Your task to perform on an android device: See recent photos Image 0: 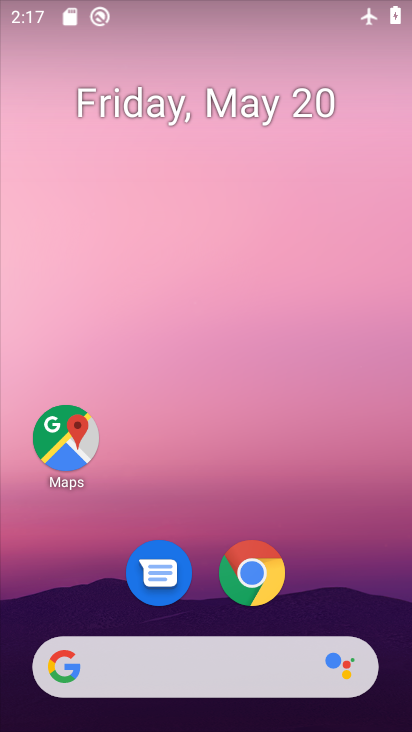
Step 0: drag from (216, 621) to (217, 173)
Your task to perform on an android device: See recent photos Image 1: 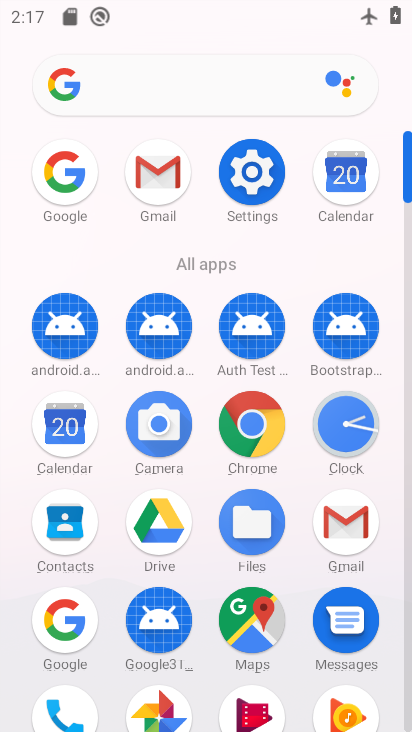
Step 1: drag from (189, 647) to (185, 430)
Your task to perform on an android device: See recent photos Image 2: 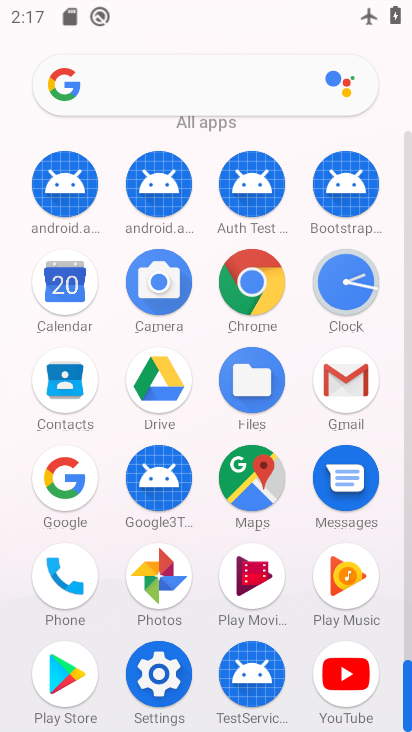
Step 2: click (159, 588)
Your task to perform on an android device: See recent photos Image 3: 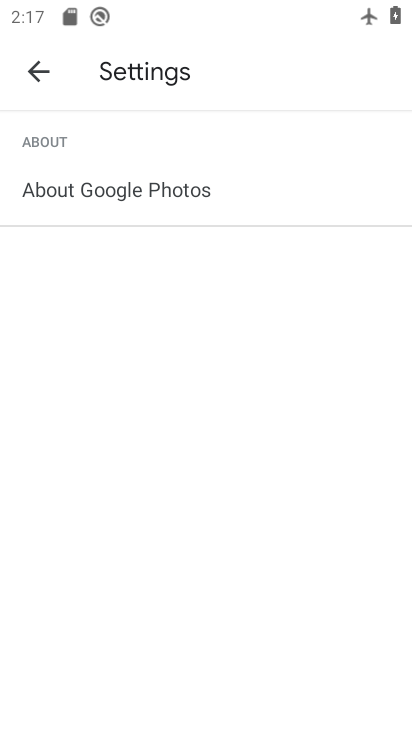
Step 3: click (47, 78)
Your task to perform on an android device: See recent photos Image 4: 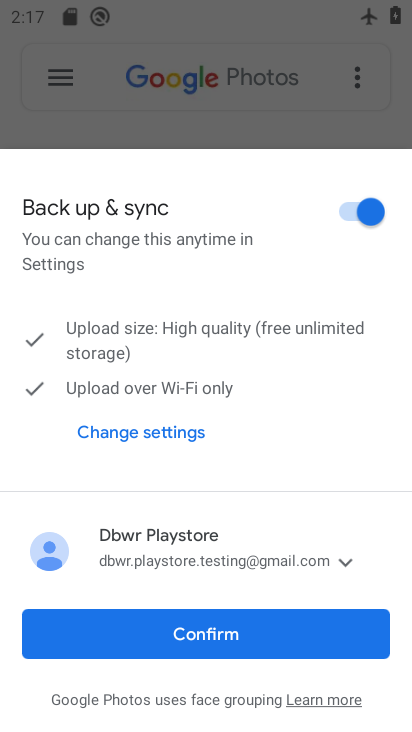
Step 4: click (235, 630)
Your task to perform on an android device: See recent photos Image 5: 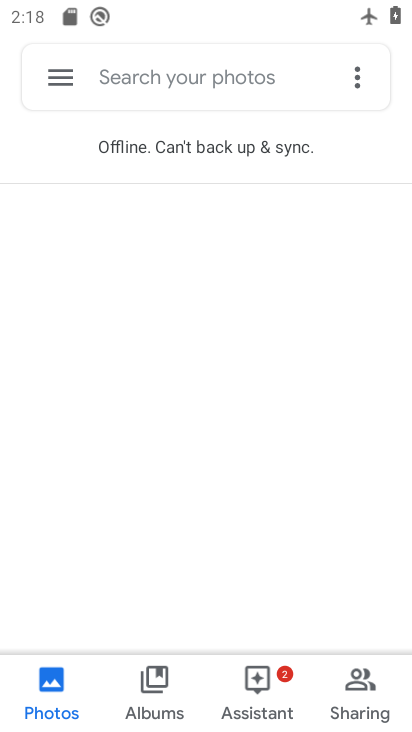
Step 5: task complete